Your task to perform on an android device: Search for a small bookcase on Ikea.com Image 0: 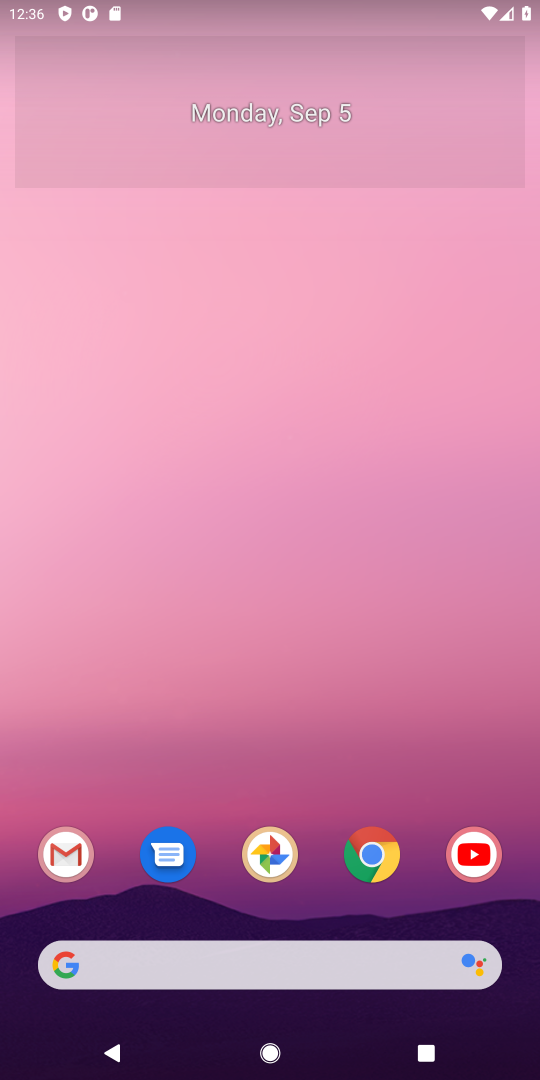
Step 0: click (377, 855)
Your task to perform on an android device: Search for a small bookcase on Ikea.com Image 1: 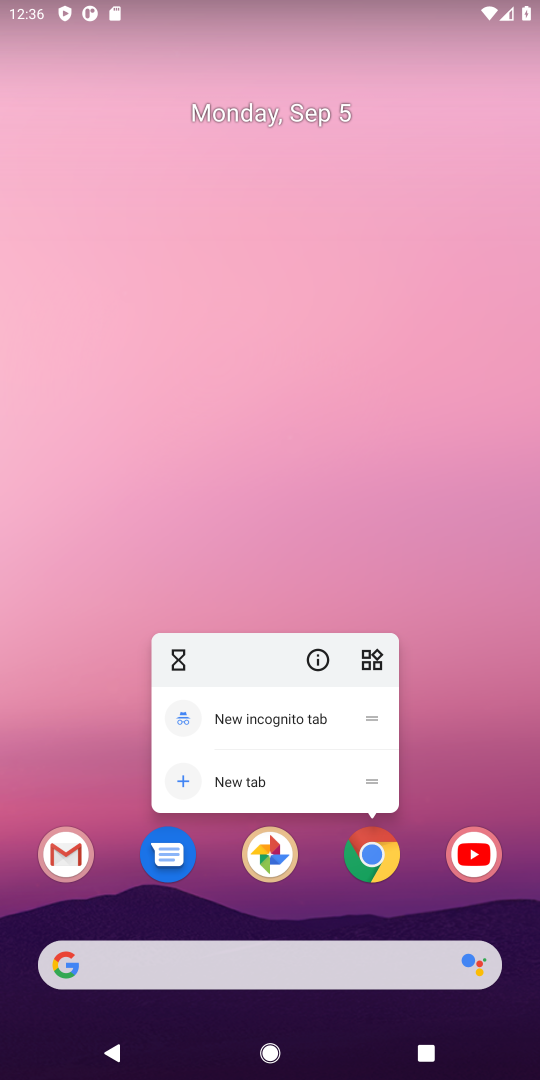
Step 1: click (371, 865)
Your task to perform on an android device: Search for a small bookcase on Ikea.com Image 2: 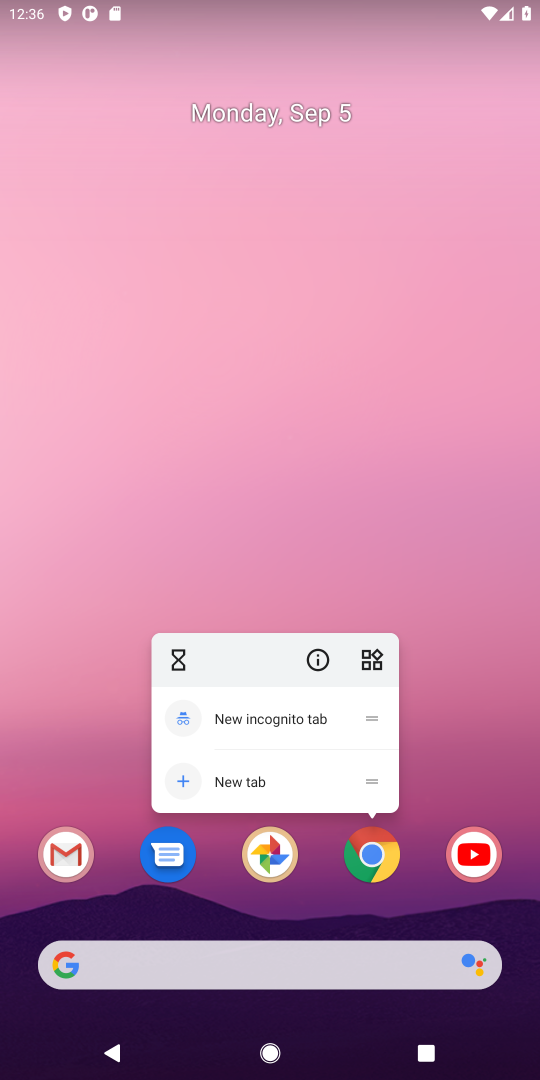
Step 2: click (371, 862)
Your task to perform on an android device: Search for a small bookcase on Ikea.com Image 3: 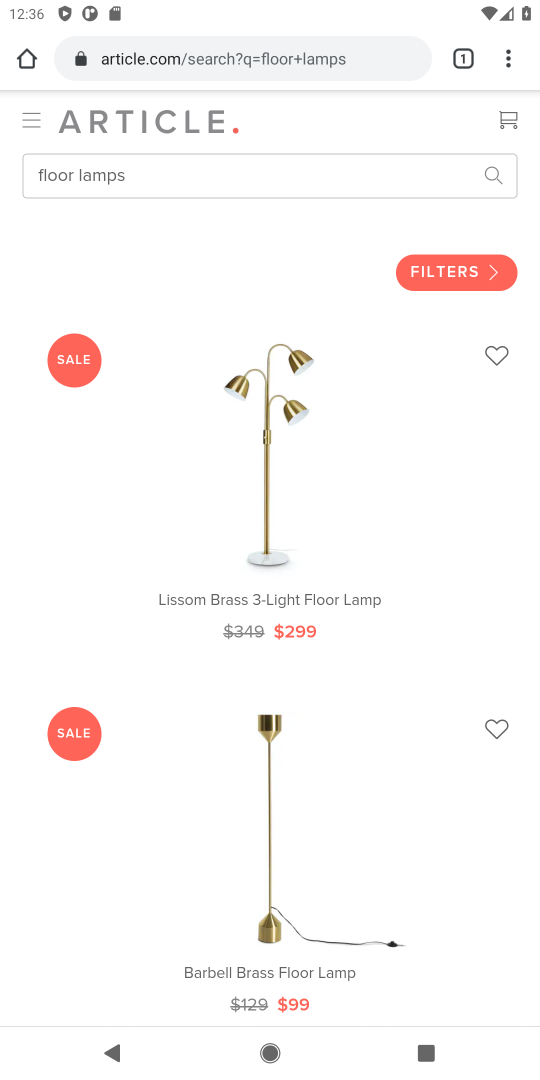
Step 3: click (358, 54)
Your task to perform on an android device: Search for a small bookcase on Ikea.com Image 4: 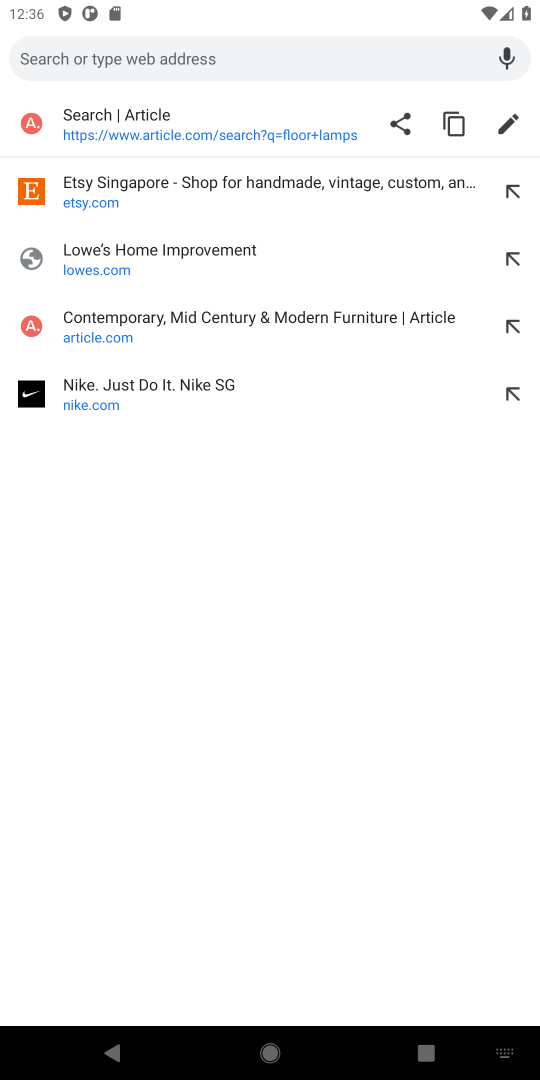
Step 4: click (358, 54)
Your task to perform on an android device: Search for a small bookcase on Ikea.com Image 5: 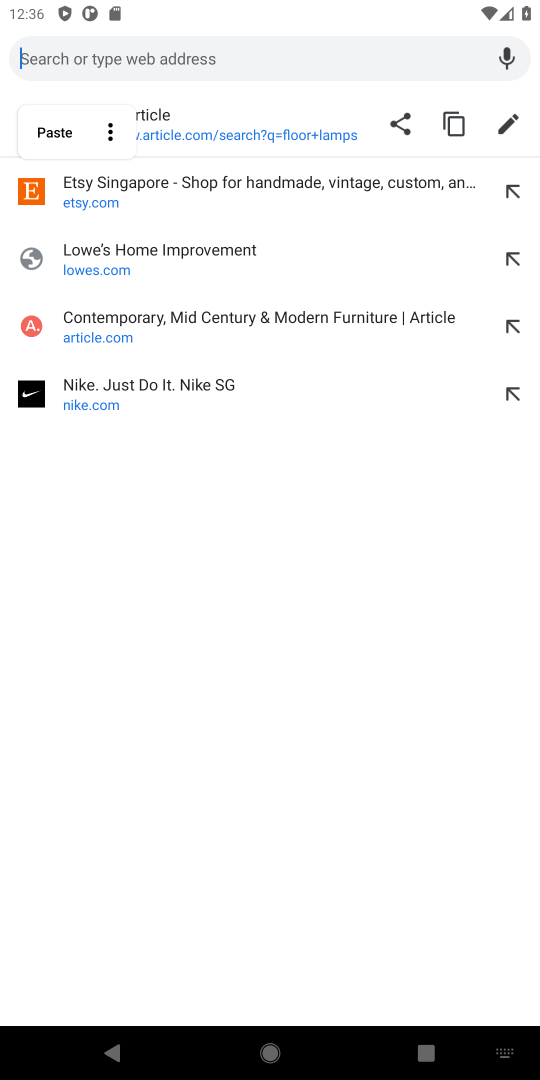
Step 5: press enter
Your task to perform on an android device: Search for a small bookcase on Ikea.com Image 6: 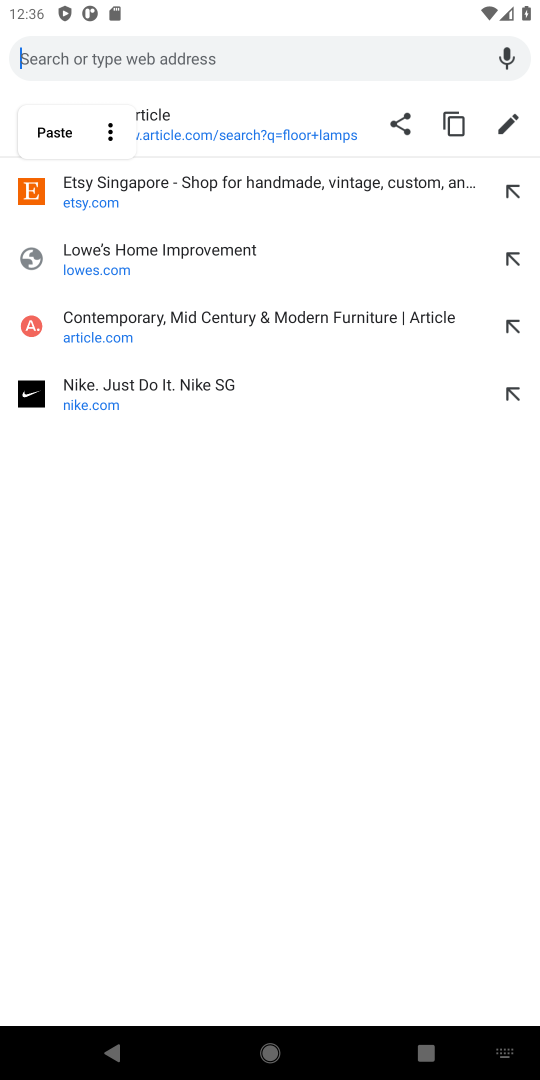
Step 6: type "Ikea.com"
Your task to perform on an android device: Search for a small bookcase on Ikea.com Image 7: 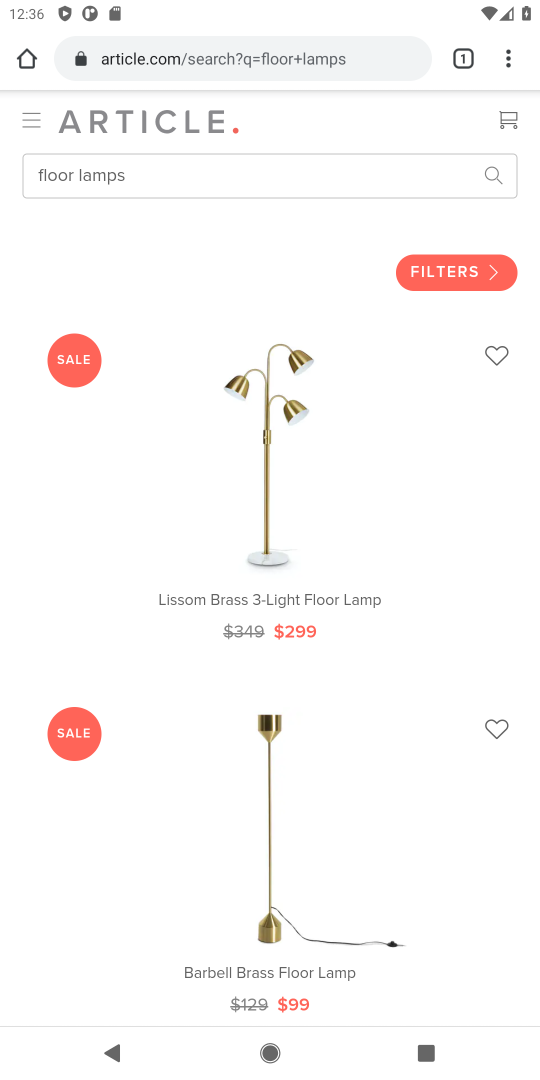
Step 7: click (298, 64)
Your task to perform on an android device: Search for a small bookcase on Ikea.com Image 8: 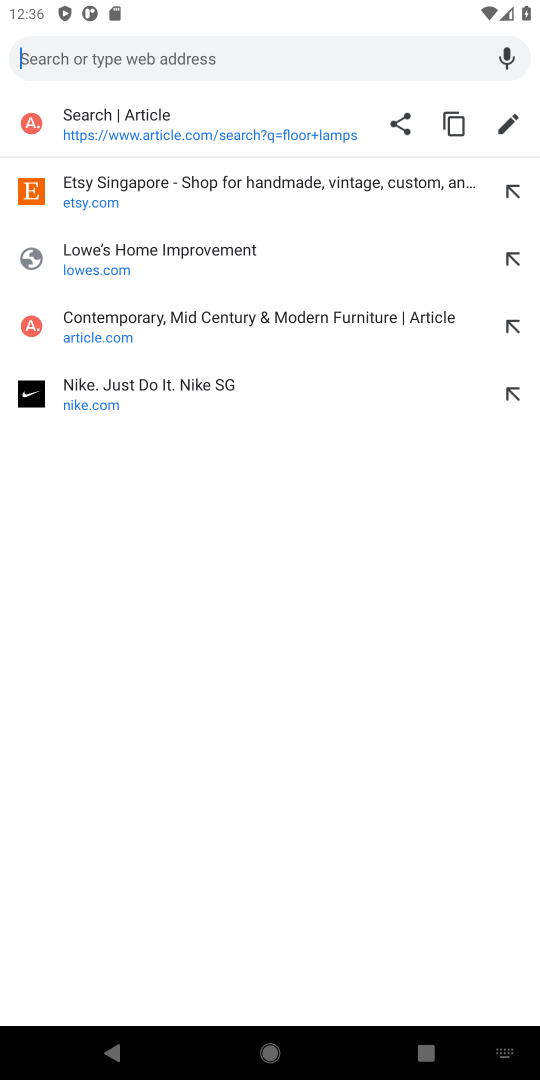
Step 8: click (243, 52)
Your task to perform on an android device: Search for a small bookcase on Ikea.com Image 9: 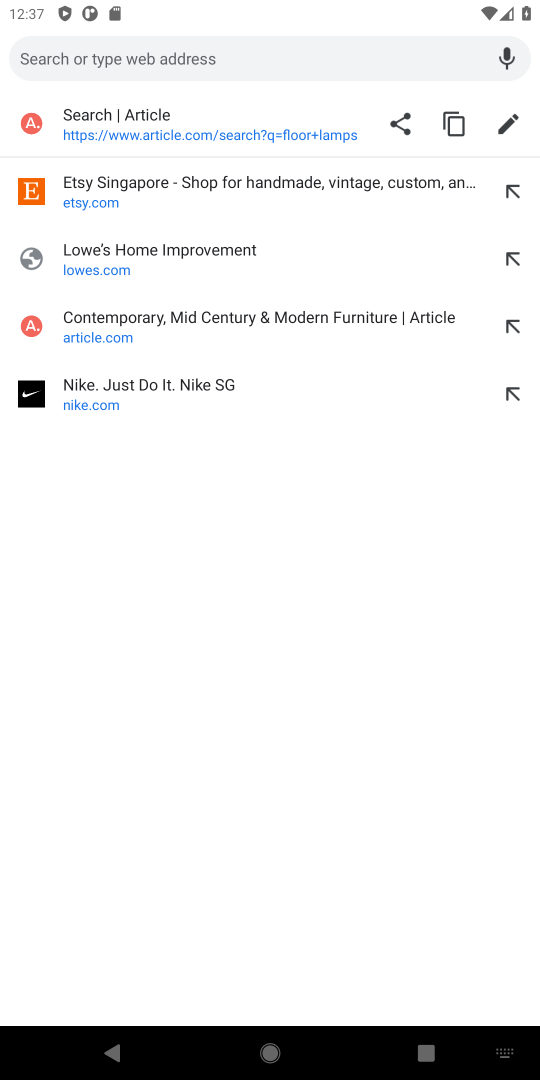
Step 9: type "Ikea.com"
Your task to perform on an android device: Search for a small bookcase on Ikea.com Image 10: 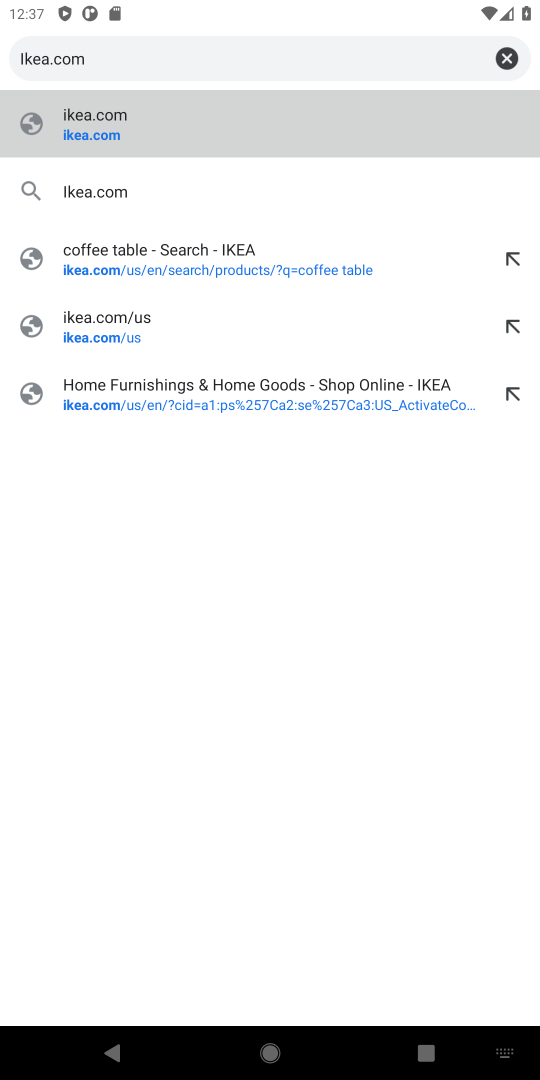
Step 10: press enter
Your task to perform on an android device: Search for a small bookcase on Ikea.com Image 11: 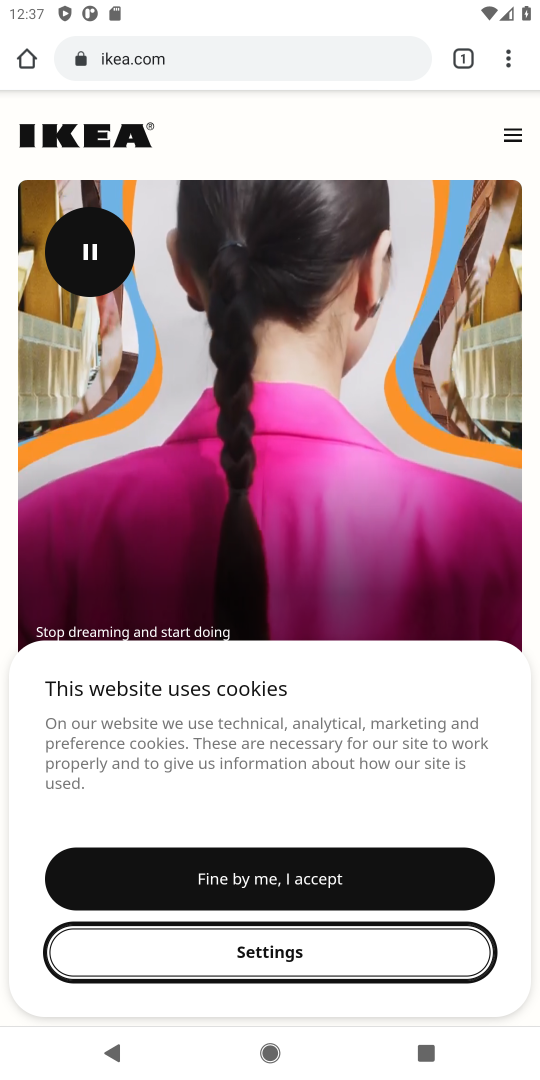
Step 11: click (291, 887)
Your task to perform on an android device: Search for a small bookcase on Ikea.com Image 12: 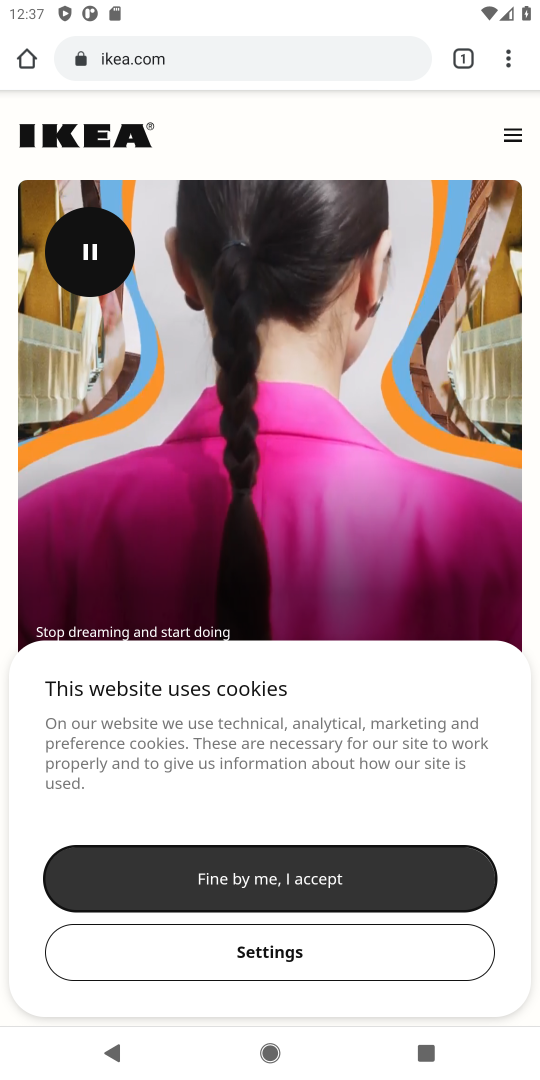
Step 12: click (270, 877)
Your task to perform on an android device: Search for a small bookcase on Ikea.com Image 13: 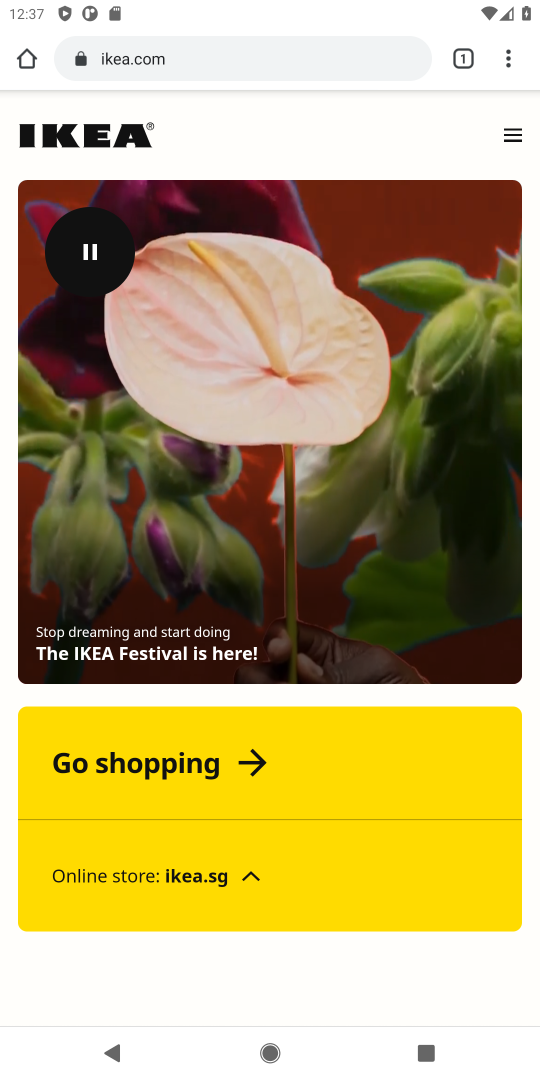
Step 13: click (208, 772)
Your task to perform on an android device: Search for a small bookcase on Ikea.com Image 14: 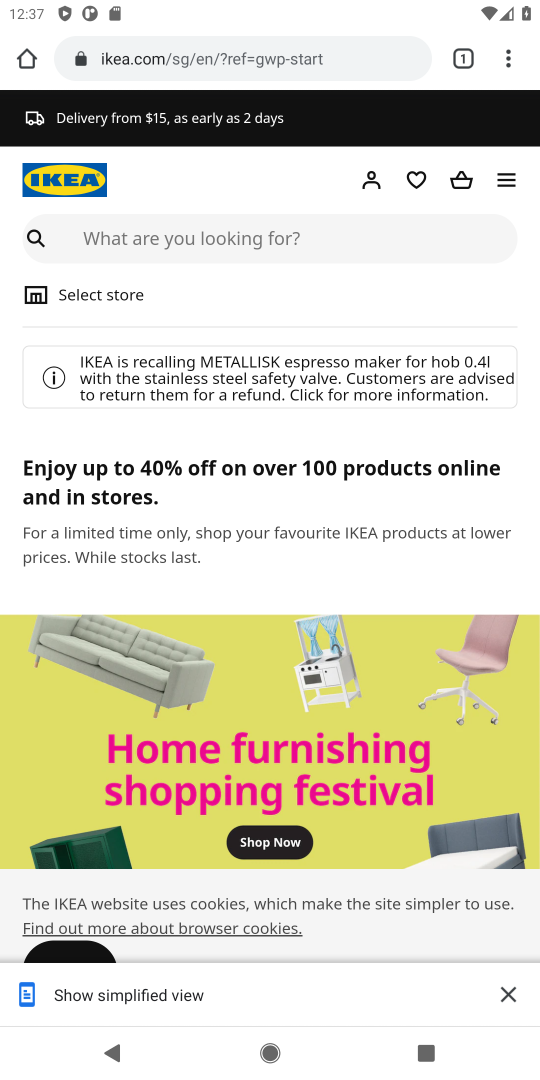
Step 14: click (248, 236)
Your task to perform on an android device: Search for a small bookcase on Ikea.com Image 15: 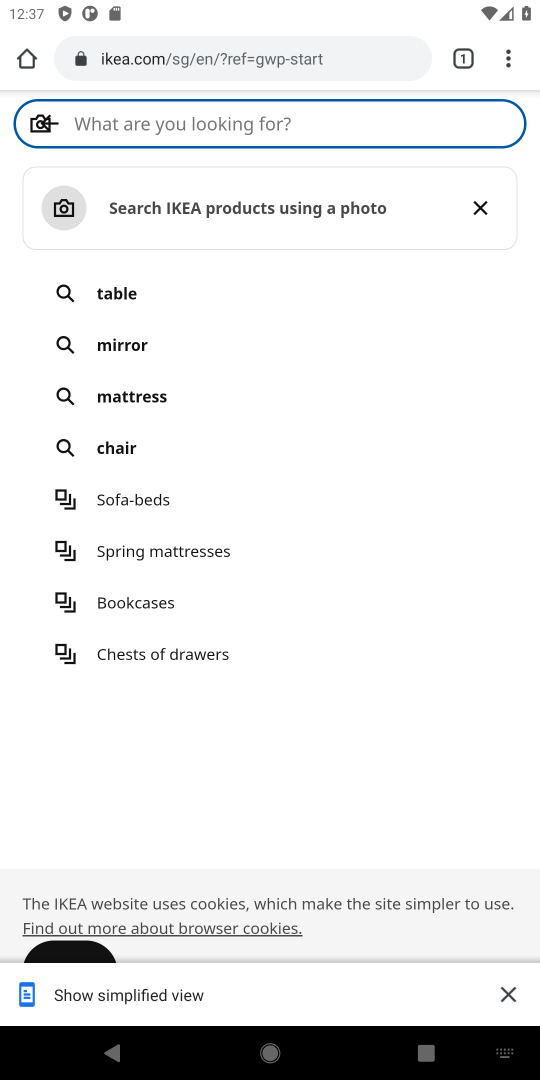
Step 15: type "small bookcase"
Your task to perform on an android device: Search for a small bookcase on Ikea.com Image 16: 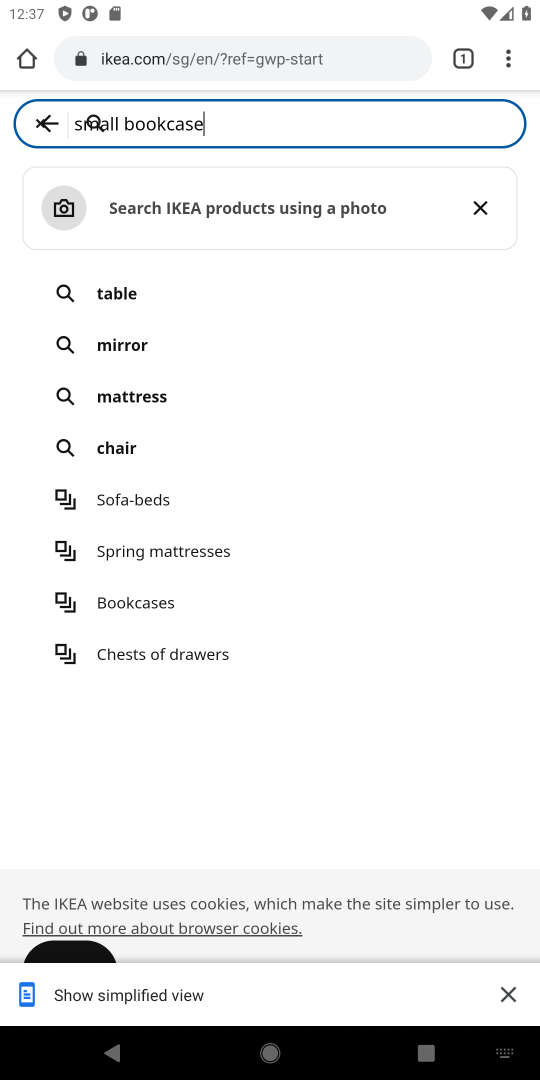
Step 16: press enter
Your task to perform on an android device: Search for a small bookcase on Ikea.com Image 17: 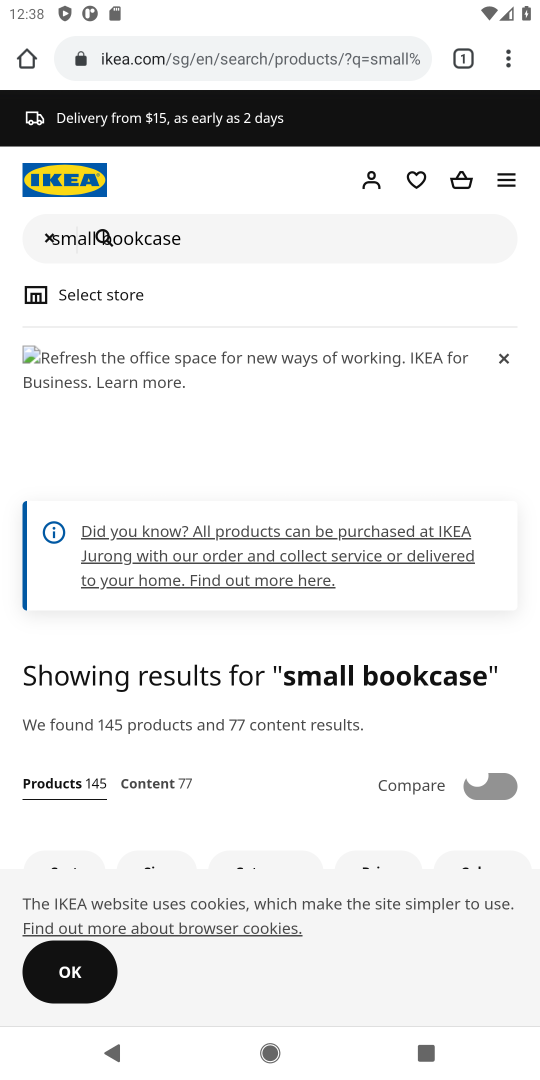
Step 17: task complete